Your task to perform on an android device: turn pop-ups off in chrome Image 0: 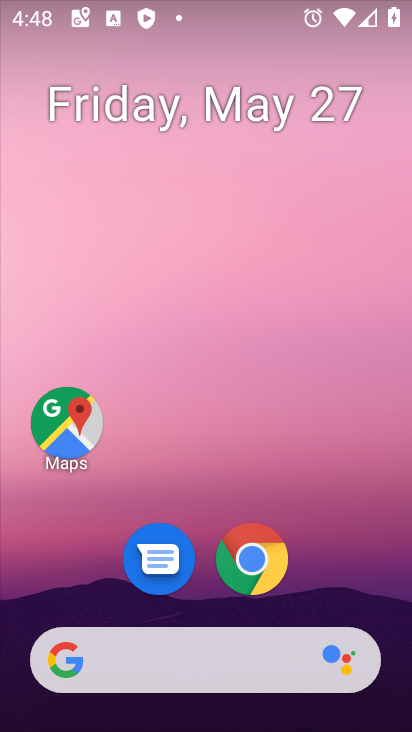
Step 0: drag from (260, 640) to (264, 33)
Your task to perform on an android device: turn pop-ups off in chrome Image 1: 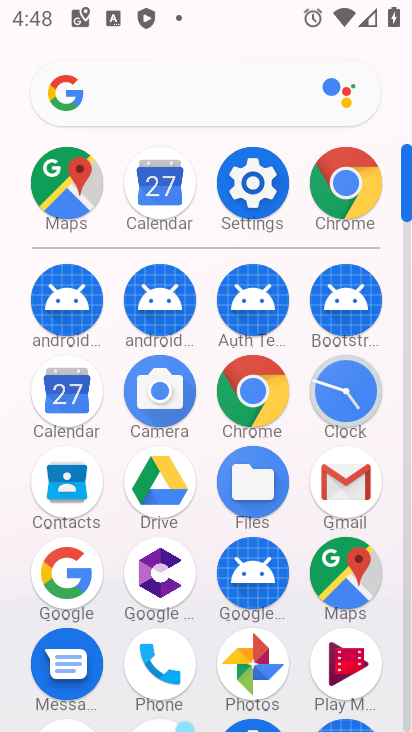
Step 1: click (263, 365)
Your task to perform on an android device: turn pop-ups off in chrome Image 2: 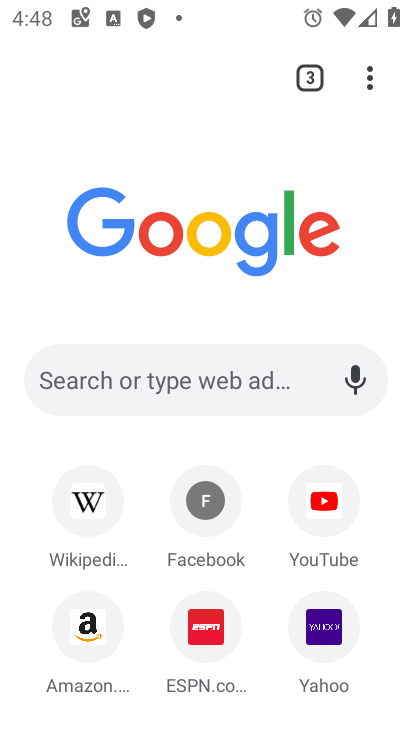
Step 2: drag from (365, 79) to (161, 630)
Your task to perform on an android device: turn pop-ups off in chrome Image 3: 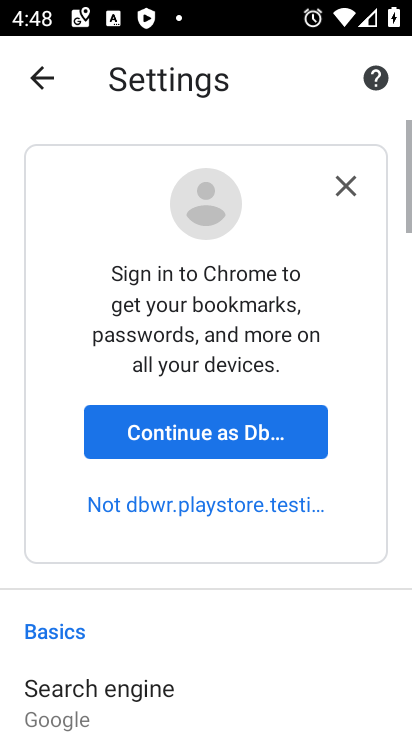
Step 3: drag from (237, 664) to (242, 23)
Your task to perform on an android device: turn pop-ups off in chrome Image 4: 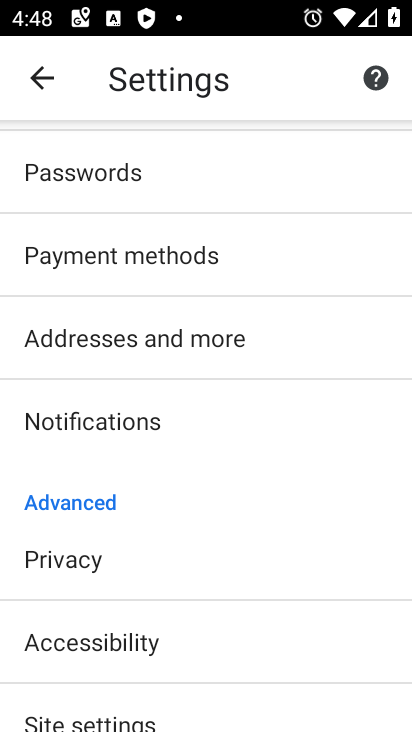
Step 4: drag from (238, 650) to (261, 342)
Your task to perform on an android device: turn pop-ups off in chrome Image 5: 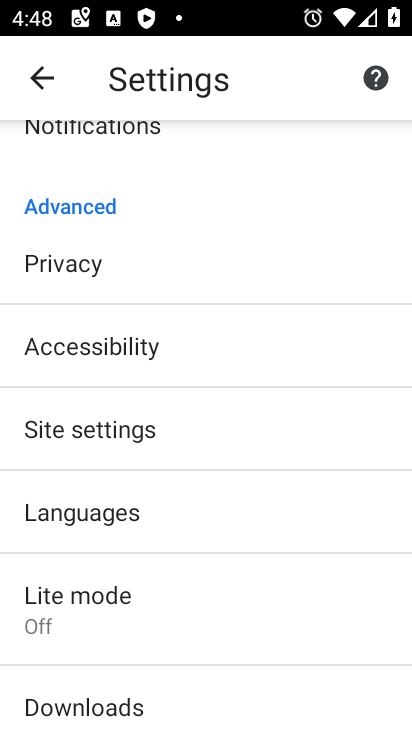
Step 5: click (144, 446)
Your task to perform on an android device: turn pop-ups off in chrome Image 6: 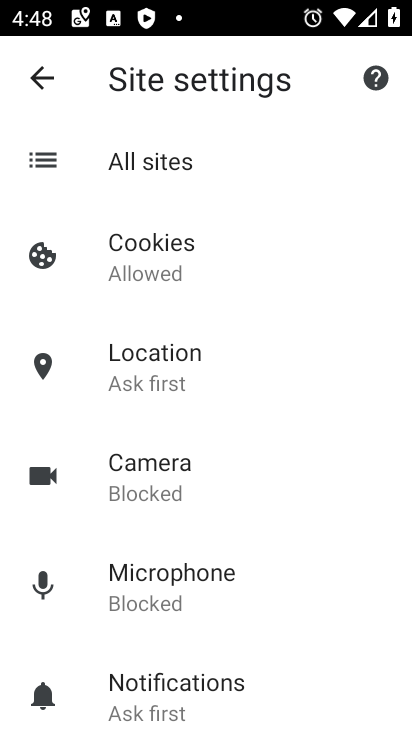
Step 6: click (206, 449)
Your task to perform on an android device: turn pop-ups off in chrome Image 7: 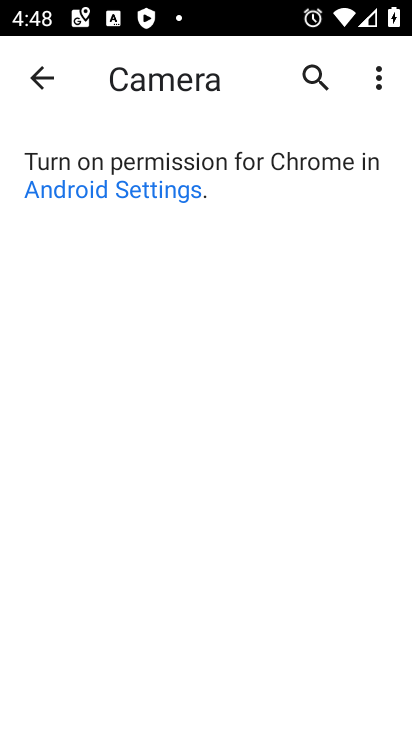
Step 7: press back button
Your task to perform on an android device: turn pop-ups off in chrome Image 8: 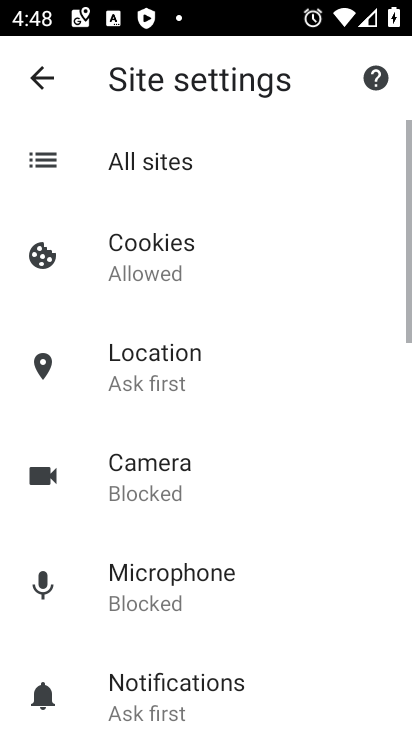
Step 8: drag from (294, 649) to (290, 7)
Your task to perform on an android device: turn pop-ups off in chrome Image 9: 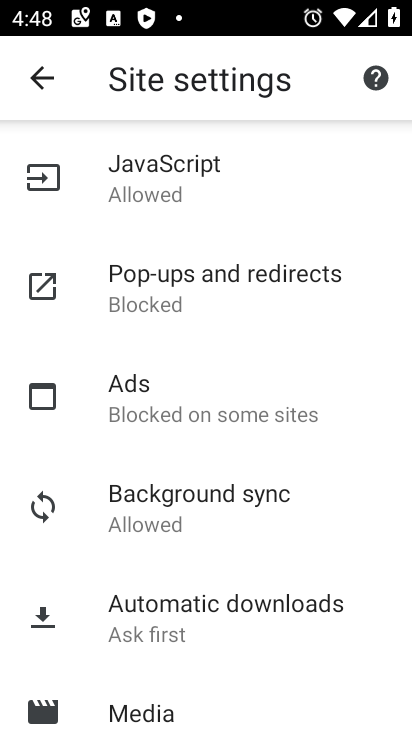
Step 9: click (242, 307)
Your task to perform on an android device: turn pop-ups off in chrome Image 10: 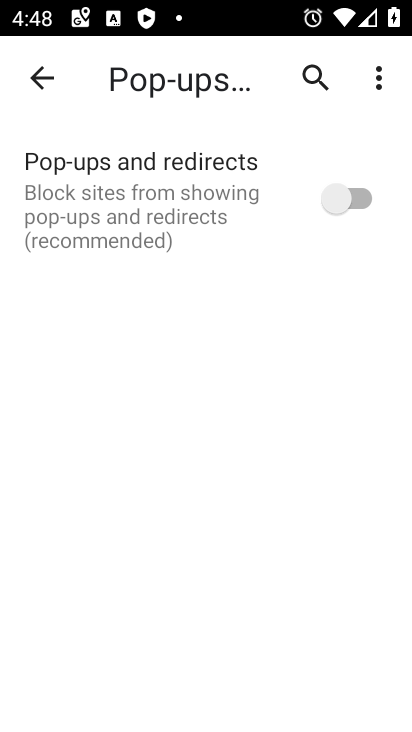
Step 10: task complete